Your task to perform on an android device: manage bookmarks in the chrome app Image 0: 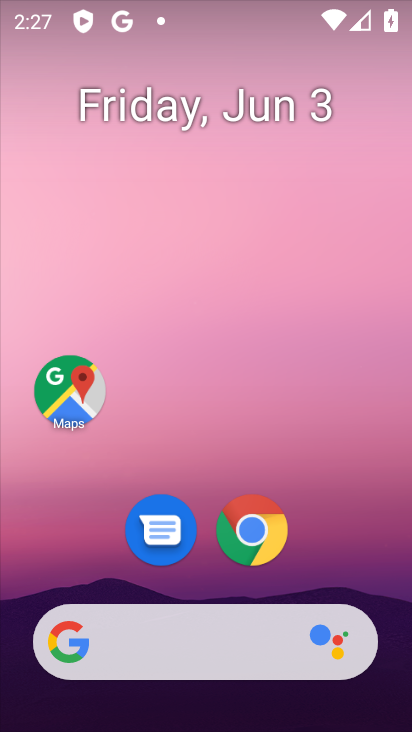
Step 0: click (246, 549)
Your task to perform on an android device: manage bookmarks in the chrome app Image 1: 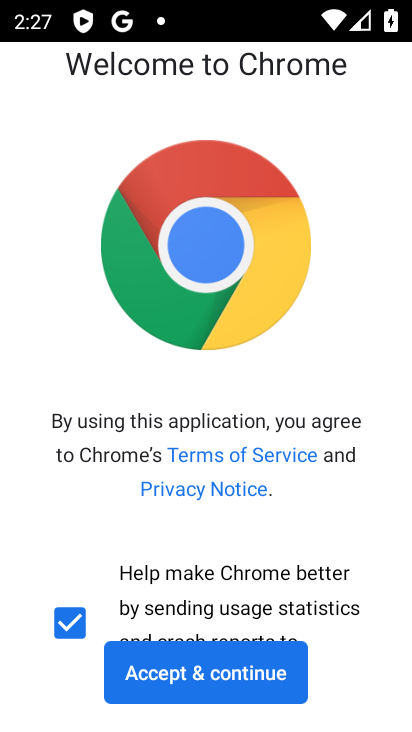
Step 1: click (214, 672)
Your task to perform on an android device: manage bookmarks in the chrome app Image 2: 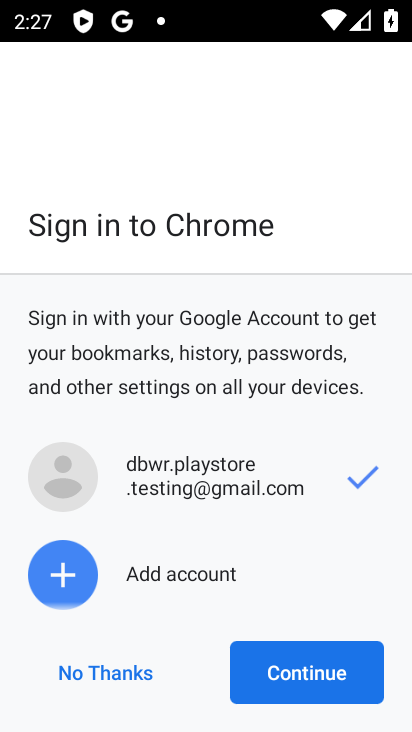
Step 2: click (310, 661)
Your task to perform on an android device: manage bookmarks in the chrome app Image 3: 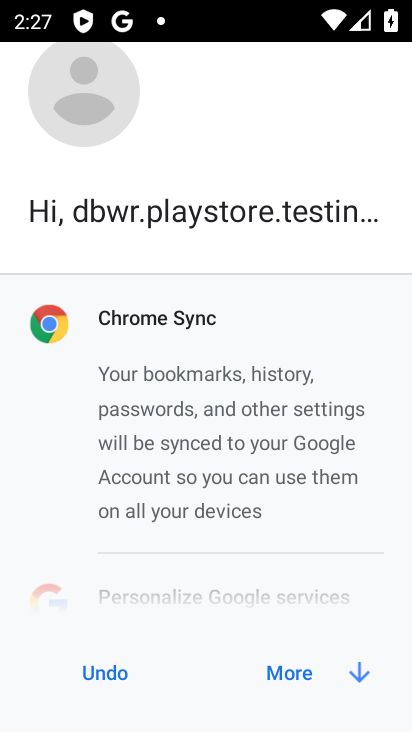
Step 3: click (339, 676)
Your task to perform on an android device: manage bookmarks in the chrome app Image 4: 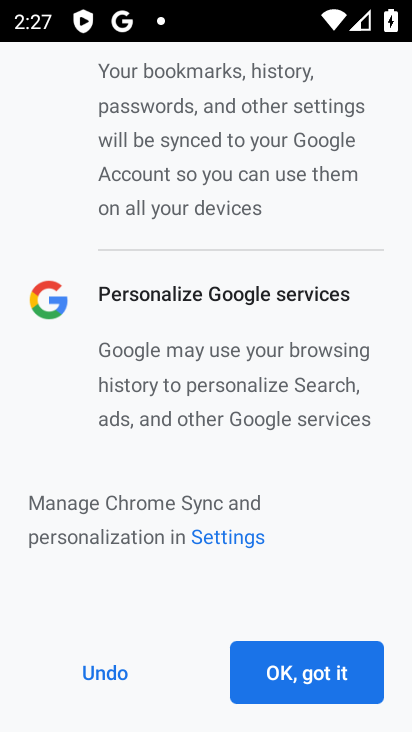
Step 4: click (349, 667)
Your task to perform on an android device: manage bookmarks in the chrome app Image 5: 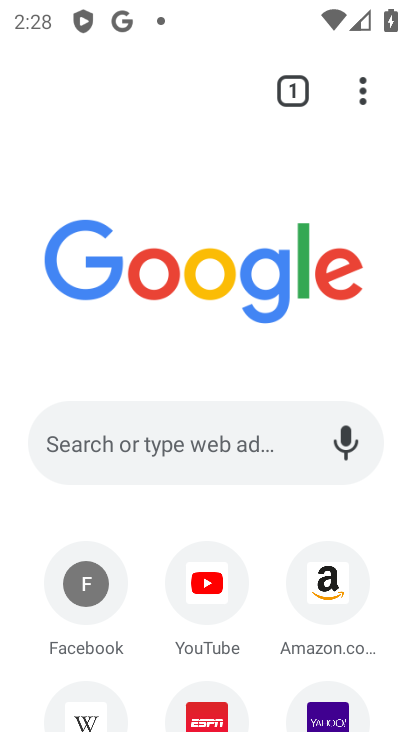
Step 5: click (362, 97)
Your task to perform on an android device: manage bookmarks in the chrome app Image 6: 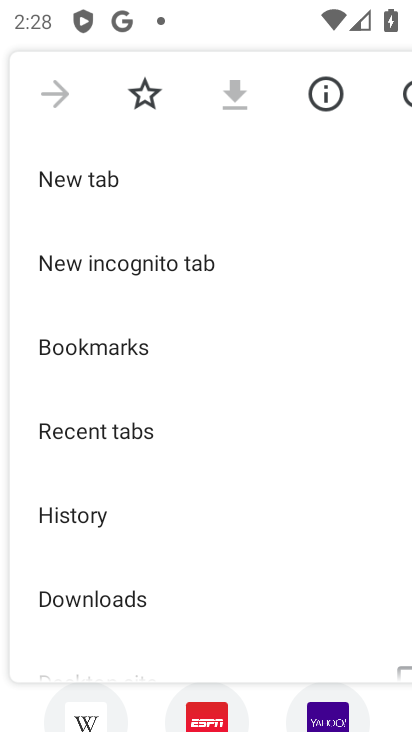
Step 6: click (126, 351)
Your task to perform on an android device: manage bookmarks in the chrome app Image 7: 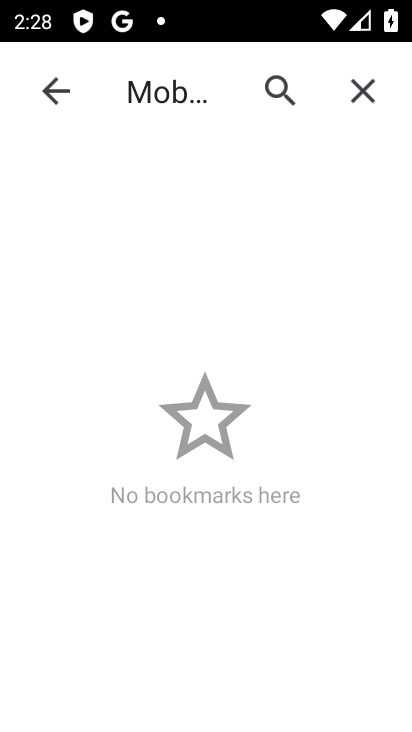
Step 7: task complete